Your task to perform on an android device: Search for vegetarian restaurants on Maps Image 0: 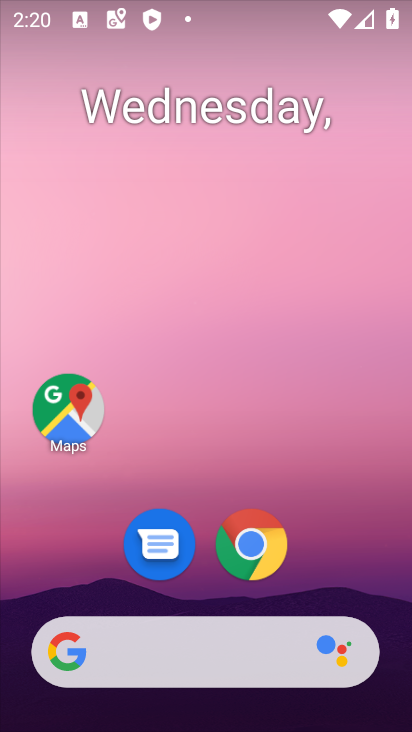
Step 0: click (66, 406)
Your task to perform on an android device: Search for vegetarian restaurants on Maps Image 1: 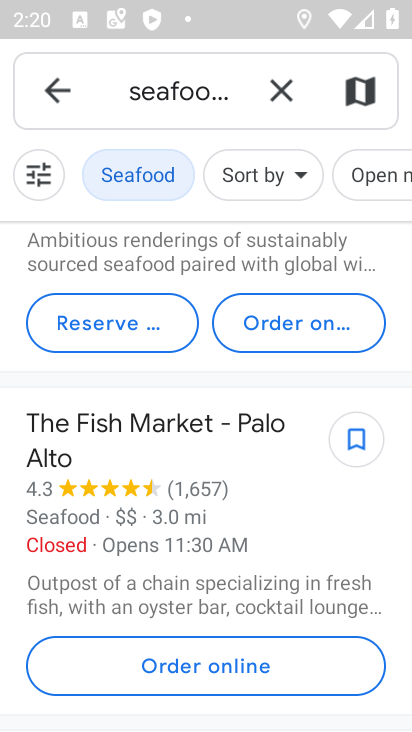
Step 1: click (277, 89)
Your task to perform on an android device: Search for vegetarian restaurants on Maps Image 2: 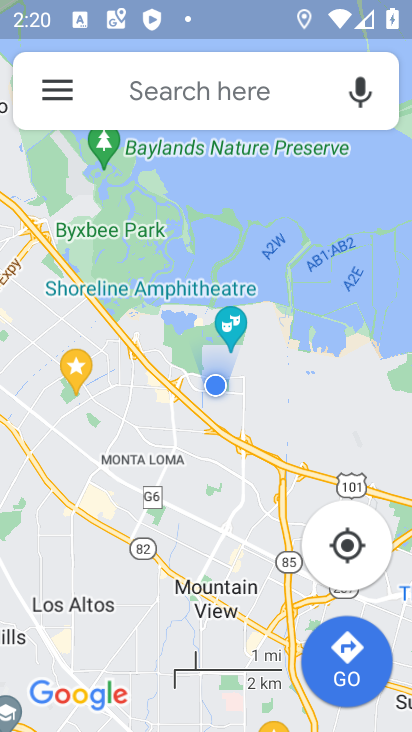
Step 2: click (187, 85)
Your task to perform on an android device: Search for vegetarian restaurants on Maps Image 3: 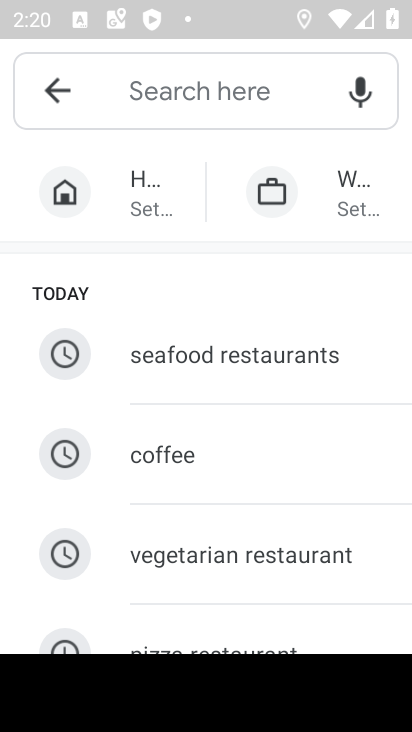
Step 3: type "vegetarian restaurants"
Your task to perform on an android device: Search for vegetarian restaurants on Maps Image 4: 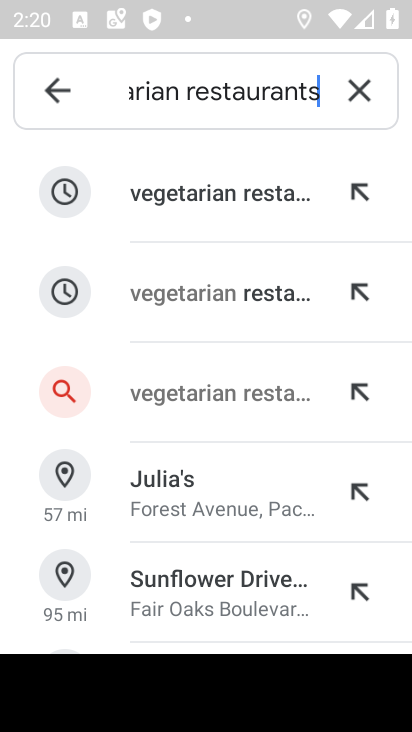
Step 4: click (193, 207)
Your task to perform on an android device: Search for vegetarian restaurants on Maps Image 5: 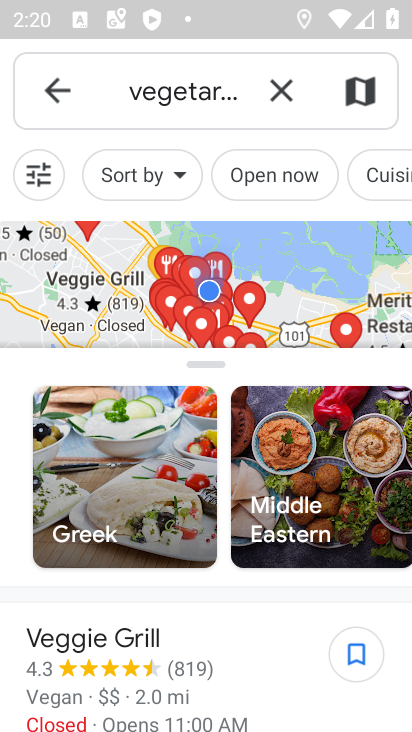
Step 5: task complete